Your task to perform on an android device: check android version Image 0: 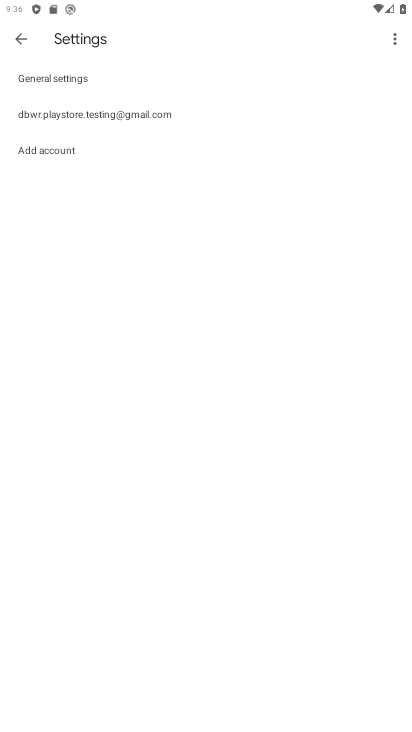
Step 0: press back button
Your task to perform on an android device: check android version Image 1: 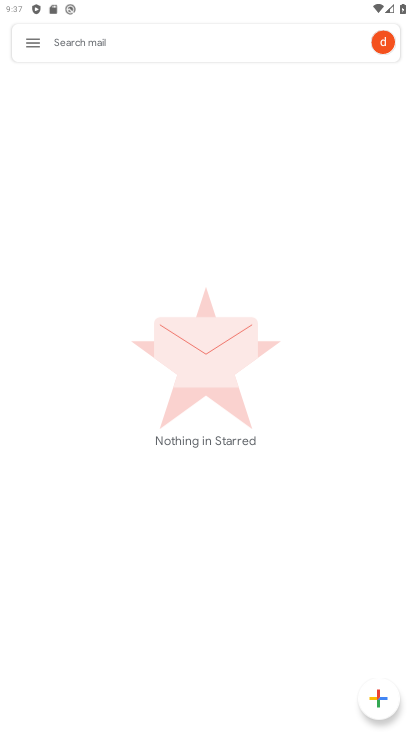
Step 1: press home button
Your task to perform on an android device: check android version Image 2: 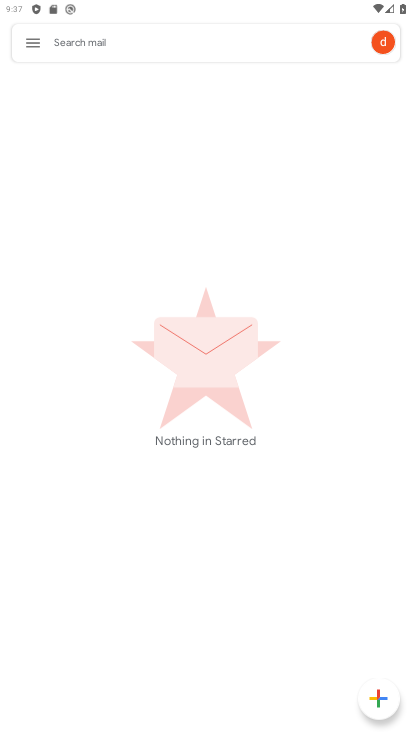
Step 2: press home button
Your task to perform on an android device: check android version Image 3: 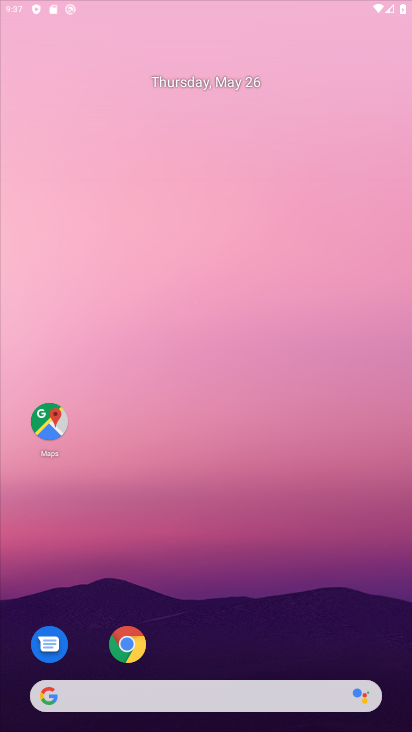
Step 3: press home button
Your task to perform on an android device: check android version Image 4: 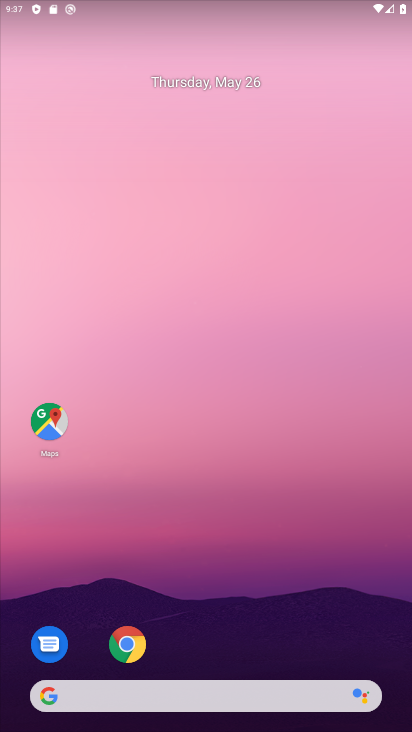
Step 4: drag from (256, 497) to (208, 9)
Your task to perform on an android device: check android version Image 5: 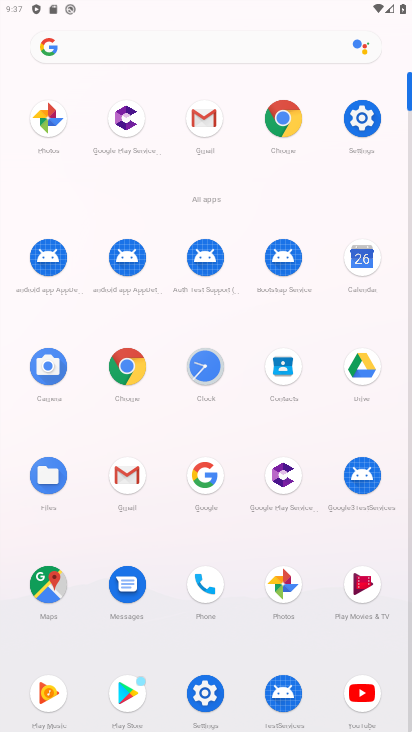
Step 5: click (285, 121)
Your task to perform on an android device: check android version Image 6: 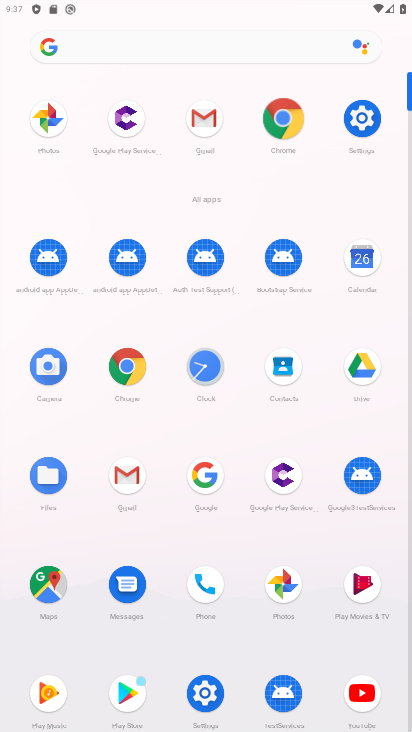
Step 6: click (284, 122)
Your task to perform on an android device: check android version Image 7: 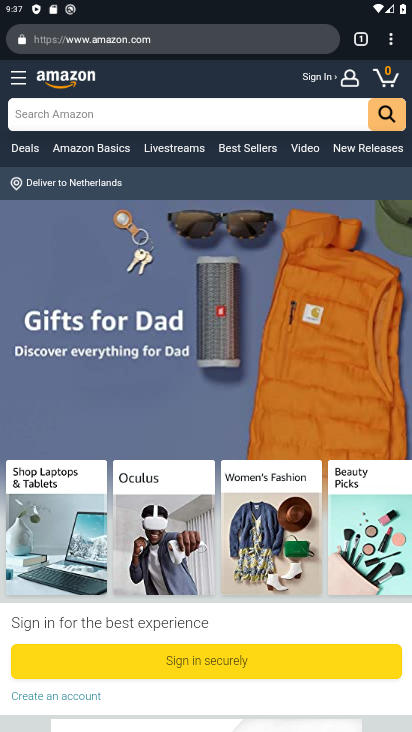
Step 7: press home button
Your task to perform on an android device: check android version Image 8: 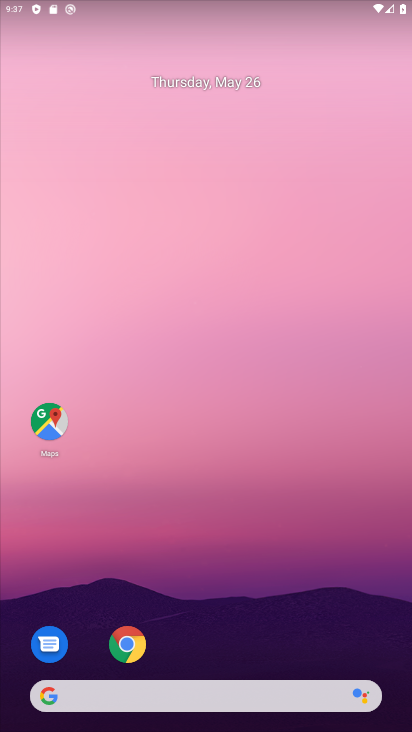
Step 8: drag from (228, 556) to (153, 35)
Your task to perform on an android device: check android version Image 9: 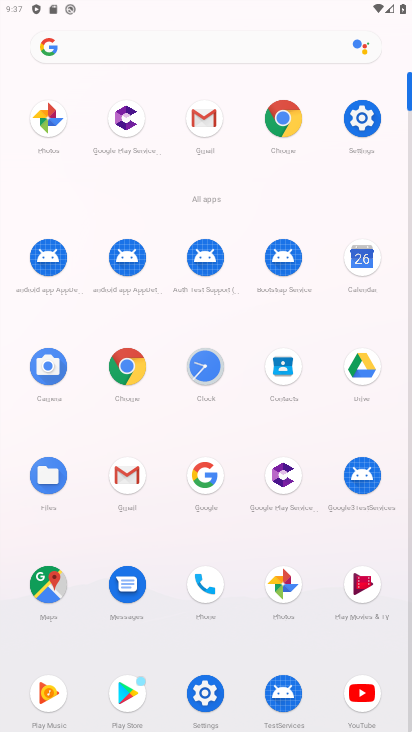
Step 9: click (205, 698)
Your task to perform on an android device: check android version Image 10: 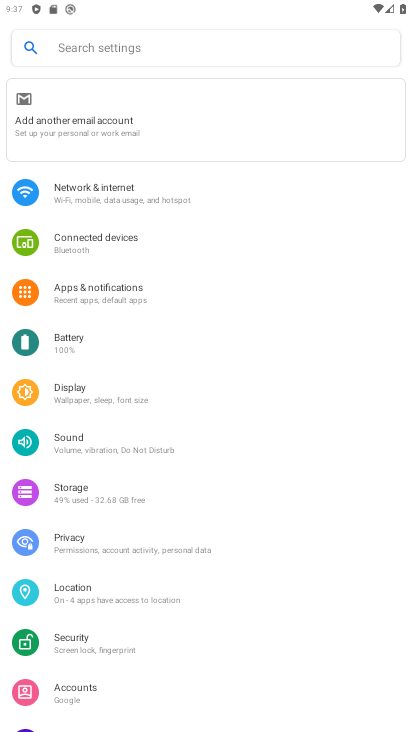
Step 10: drag from (78, 543) to (131, 139)
Your task to perform on an android device: check android version Image 11: 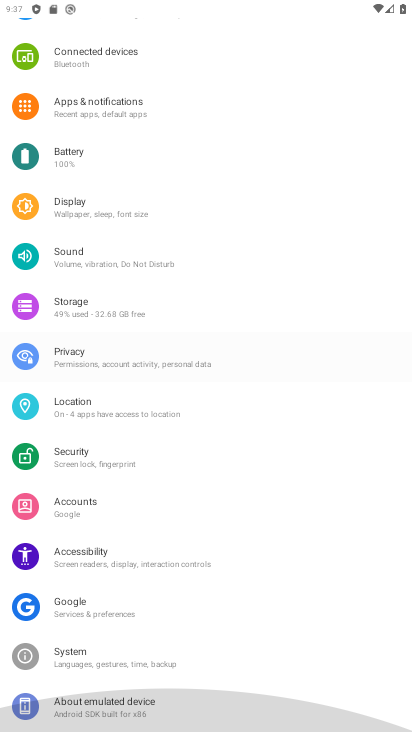
Step 11: drag from (162, 545) to (107, 211)
Your task to perform on an android device: check android version Image 12: 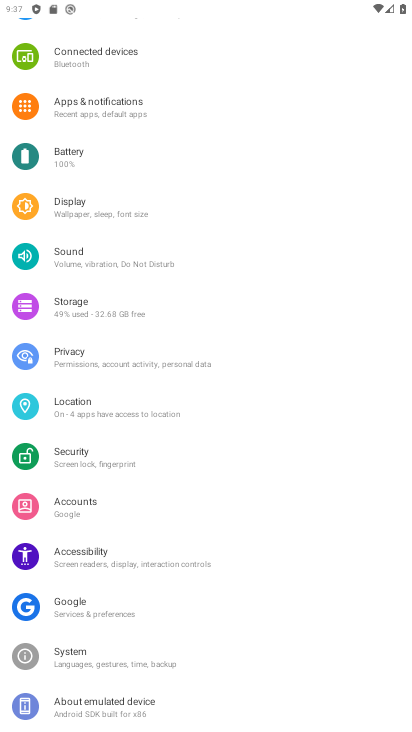
Step 12: click (84, 697)
Your task to perform on an android device: check android version Image 13: 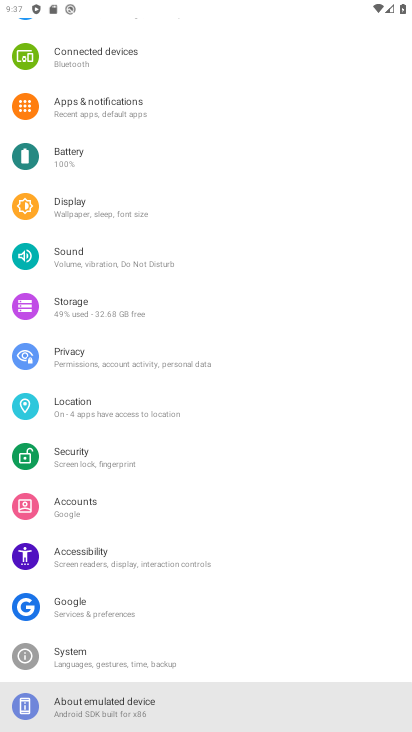
Step 13: click (101, 718)
Your task to perform on an android device: check android version Image 14: 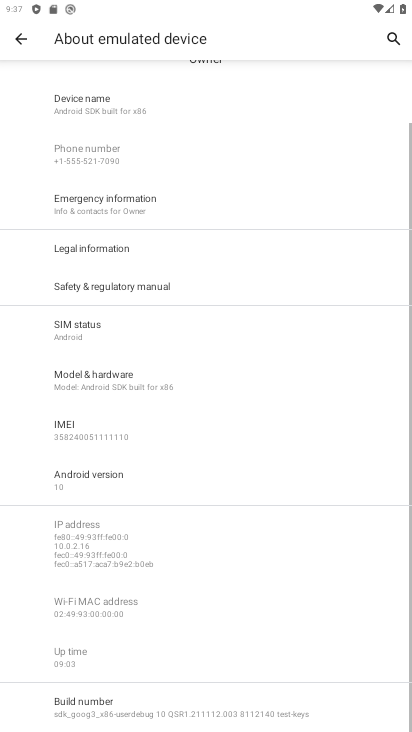
Step 14: task complete